Your task to perform on an android device: open sync settings in chrome Image 0: 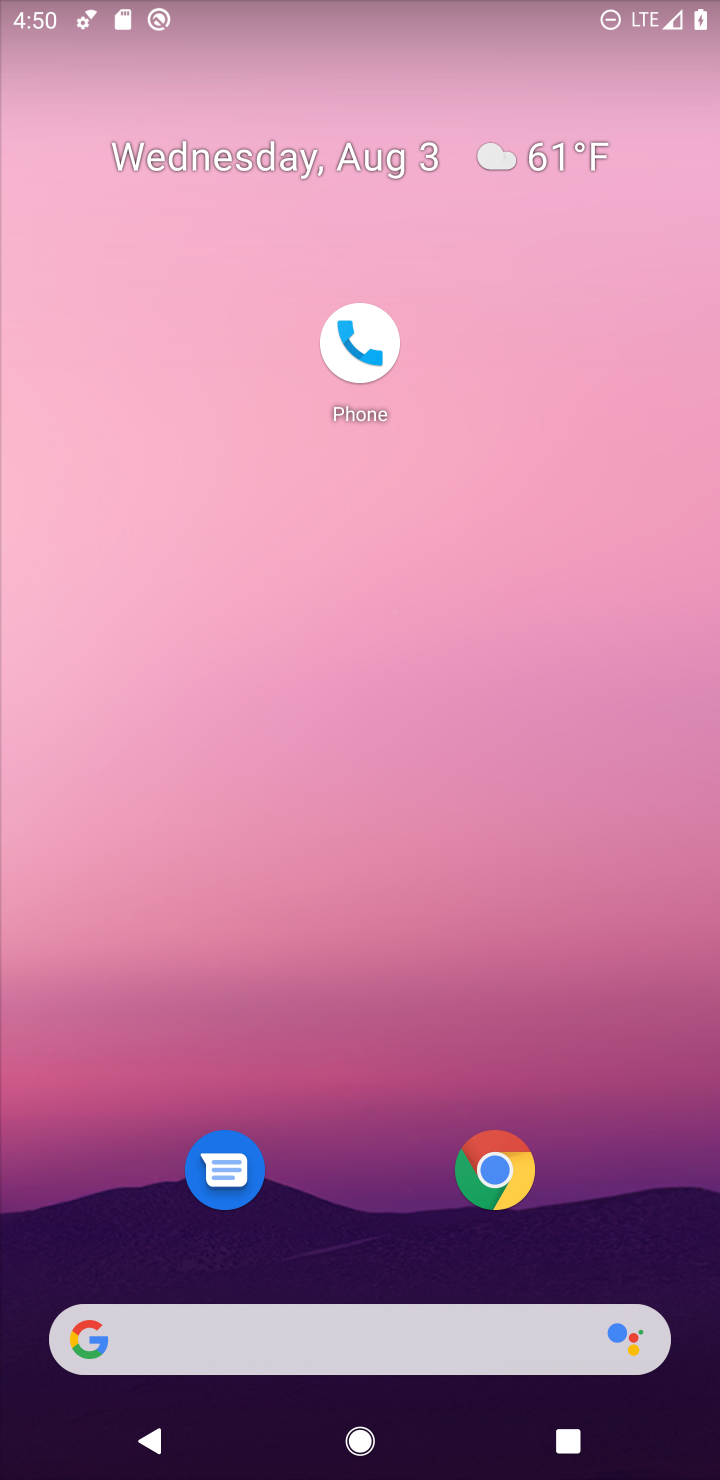
Step 0: press back button
Your task to perform on an android device: open sync settings in chrome Image 1: 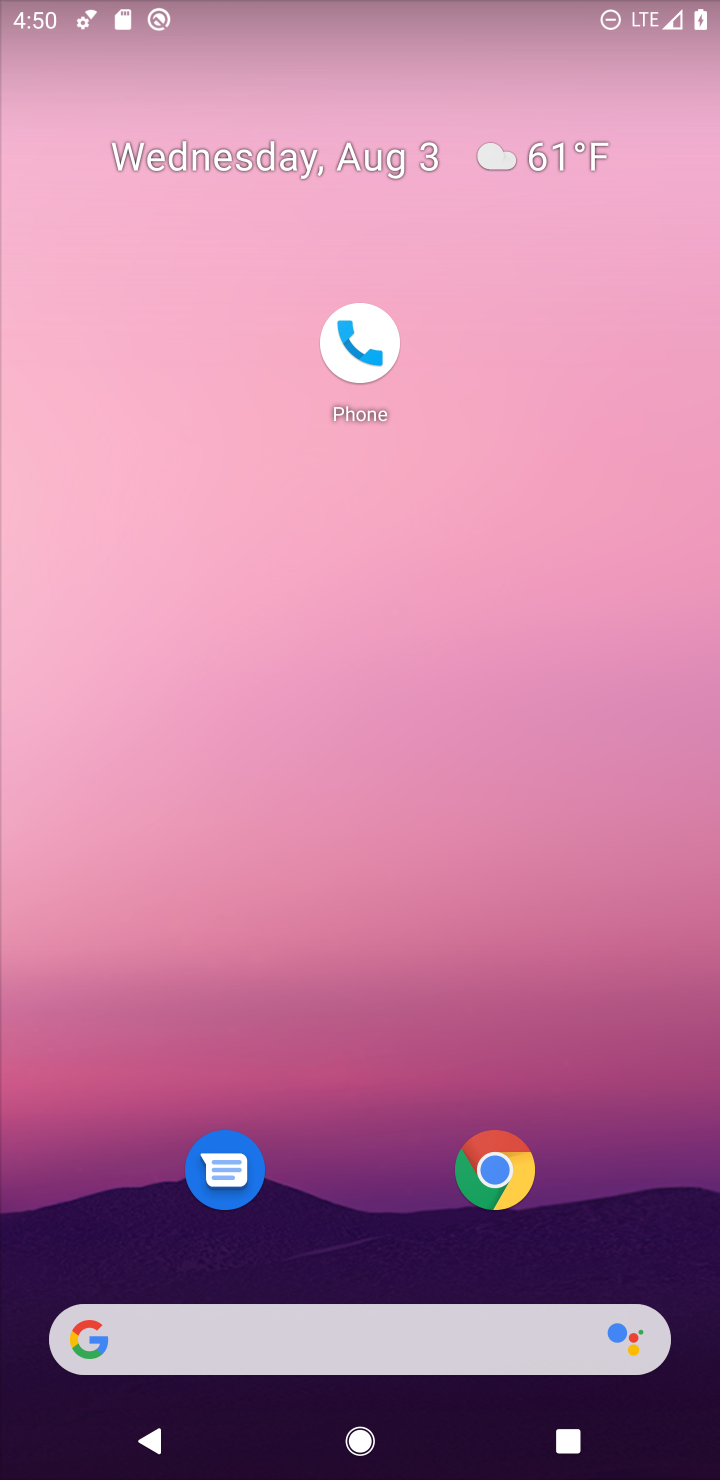
Step 1: click (462, 1162)
Your task to perform on an android device: open sync settings in chrome Image 2: 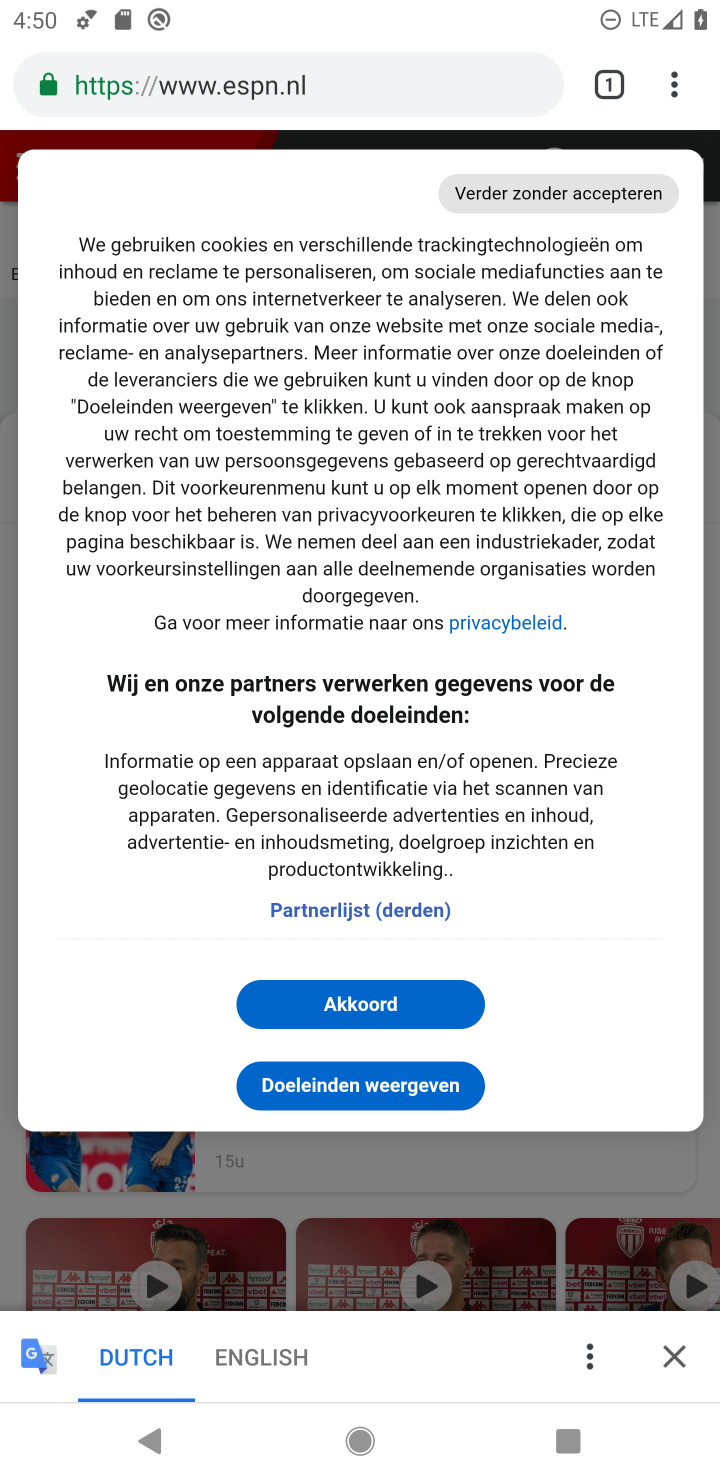
Step 2: click (675, 97)
Your task to perform on an android device: open sync settings in chrome Image 3: 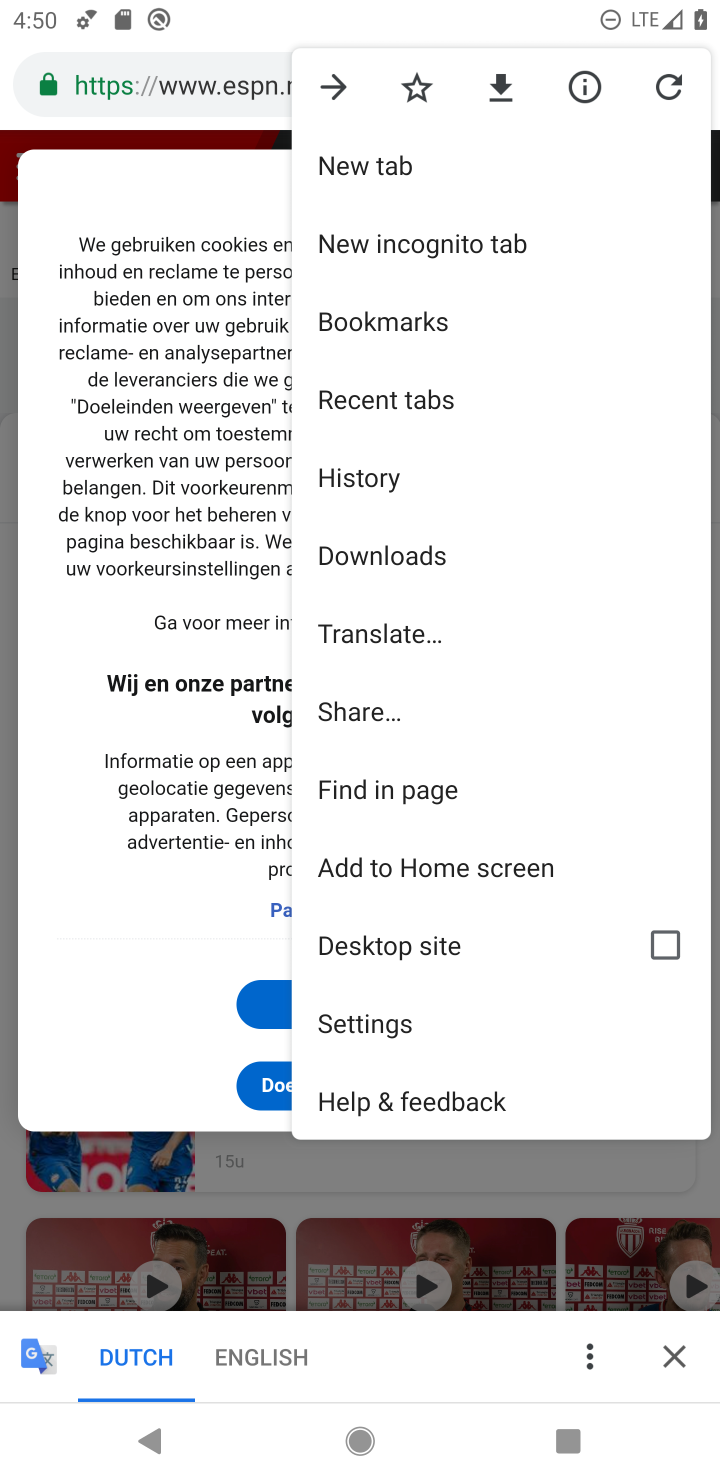
Step 3: click (373, 1030)
Your task to perform on an android device: open sync settings in chrome Image 4: 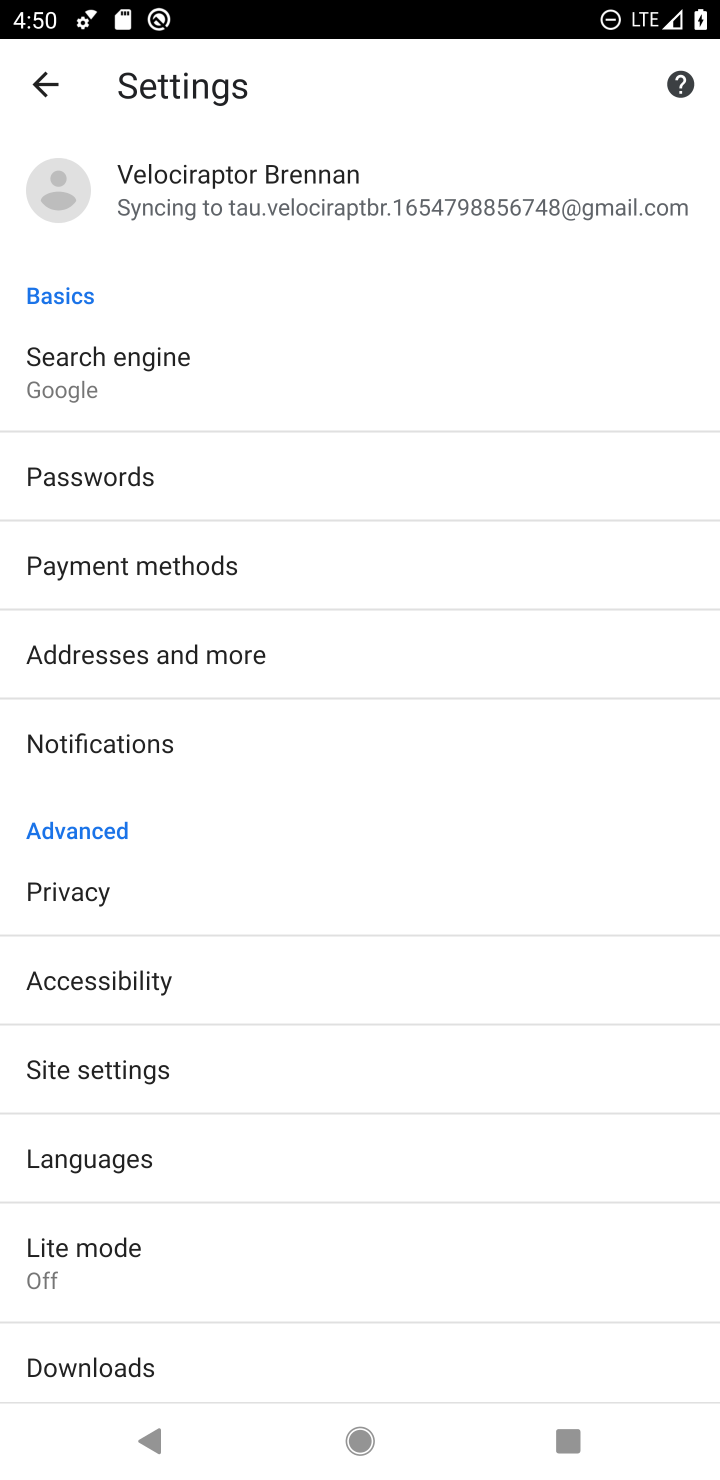
Step 4: click (100, 1074)
Your task to perform on an android device: open sync settings in chrome Image 5: 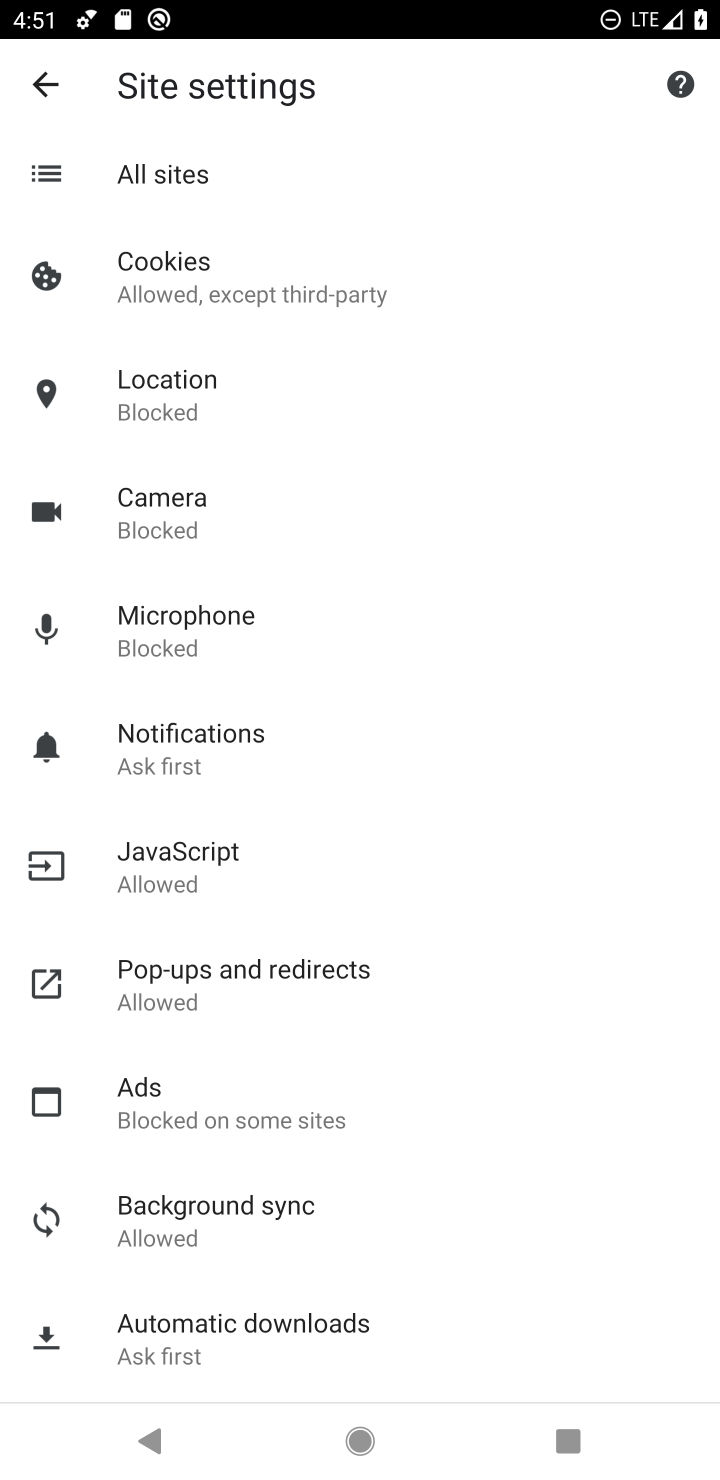
Step 5: click (51, 74)
Your task to perform on an android device: open sync settings in chrome Image 6: 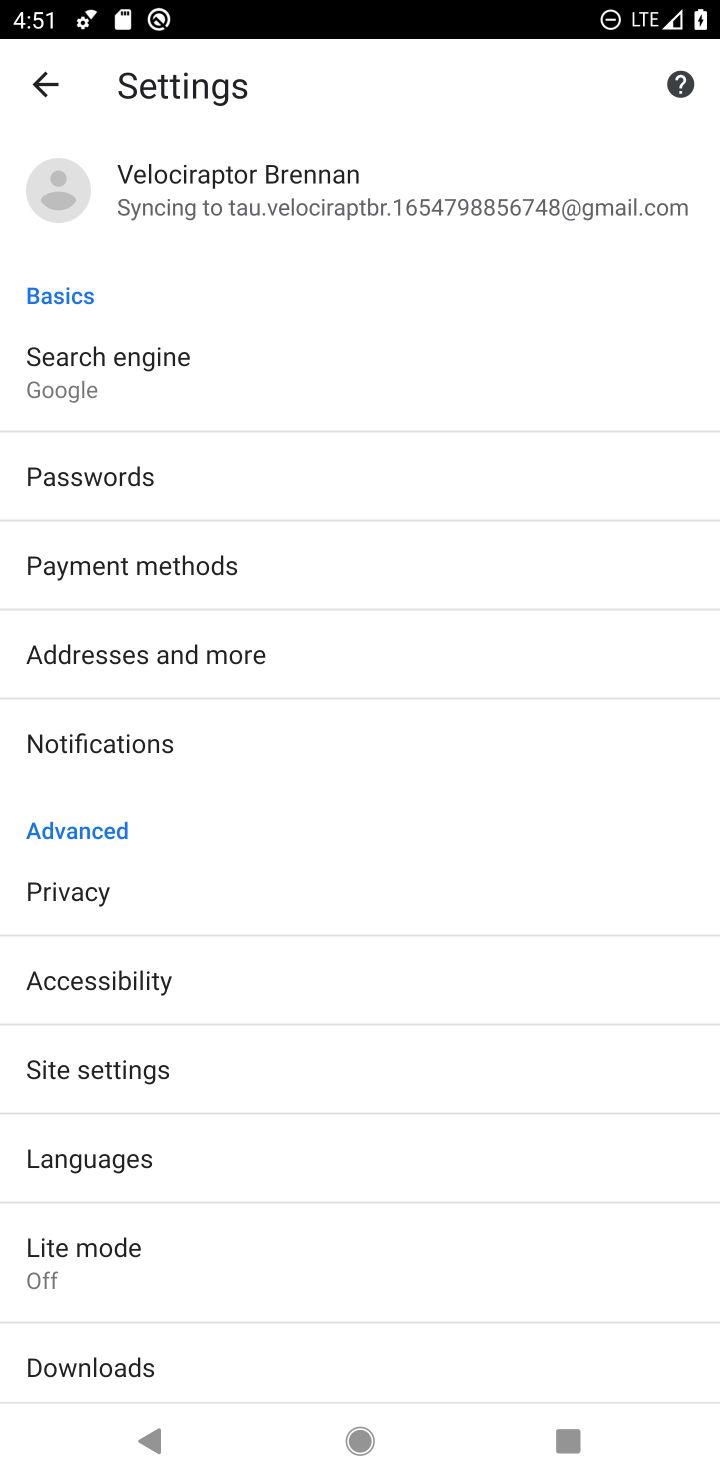
Step 6: click (269, 189)
Your task to perform on an android device: open sync settings in chrome Image 7: 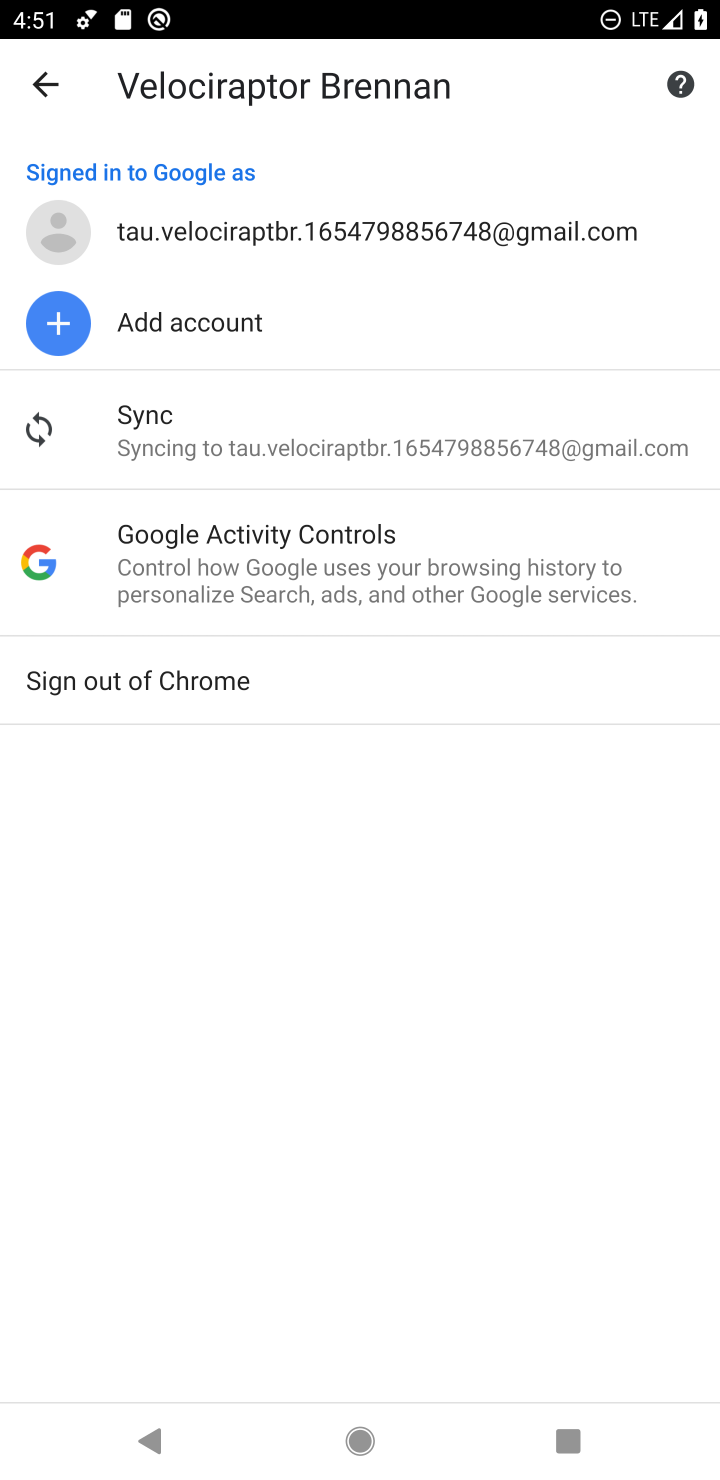
Step 7: click (128, 423)
Your task to perform on an android device: open sync settings in chrome Image 8: 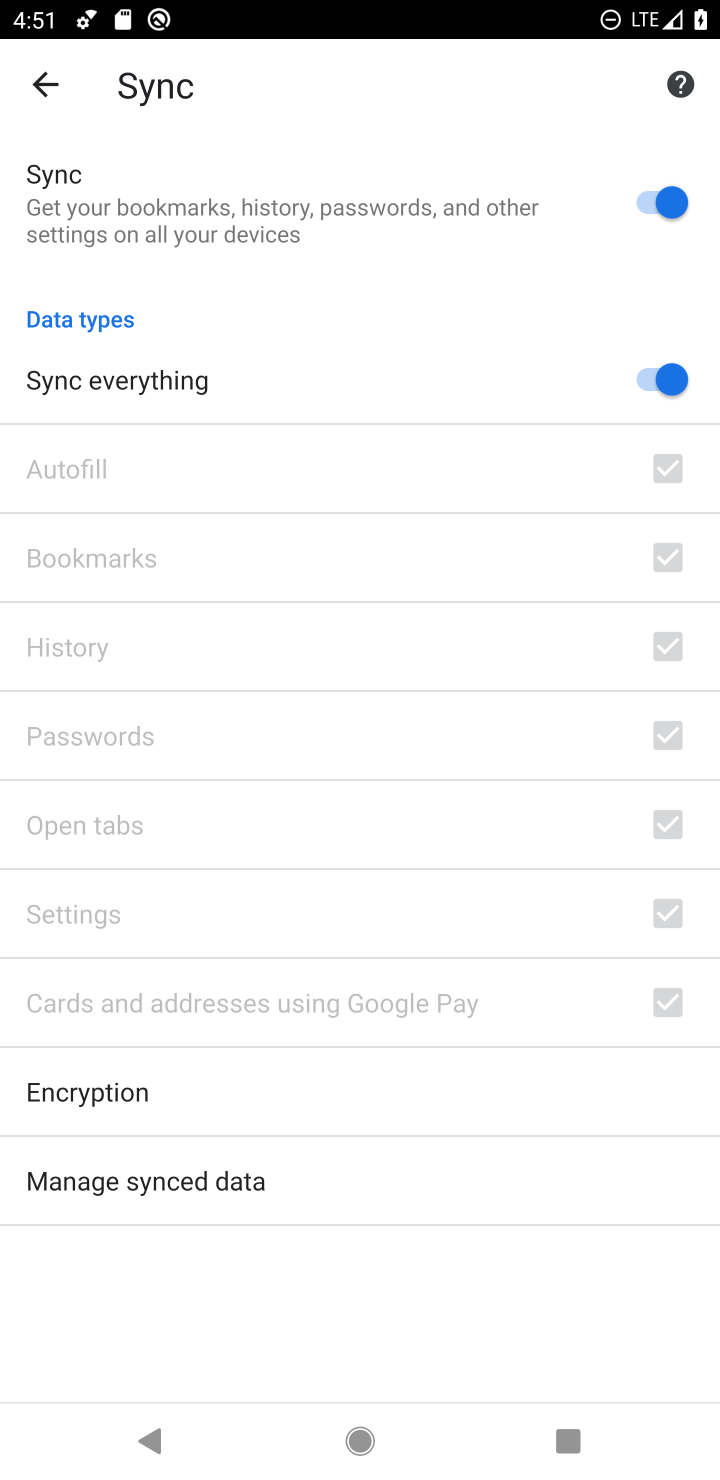
Step 8: task complete